Your task to perform on an android device: Play the last video I watched on Youtube Image 0: 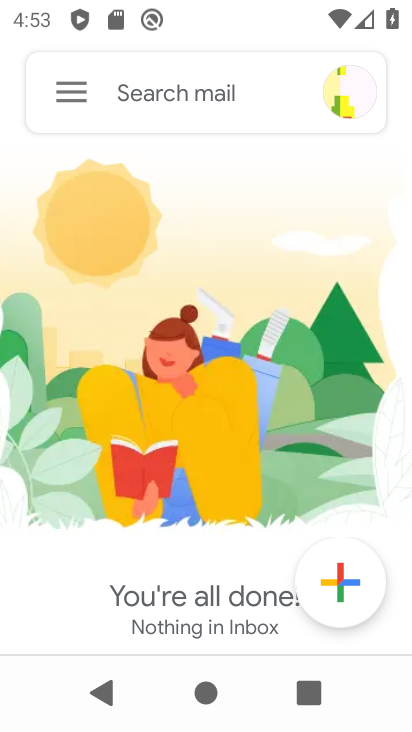
Step 0: press home button
Your task to perform on an android device: Play the last video I watched on Youtube Image 1: 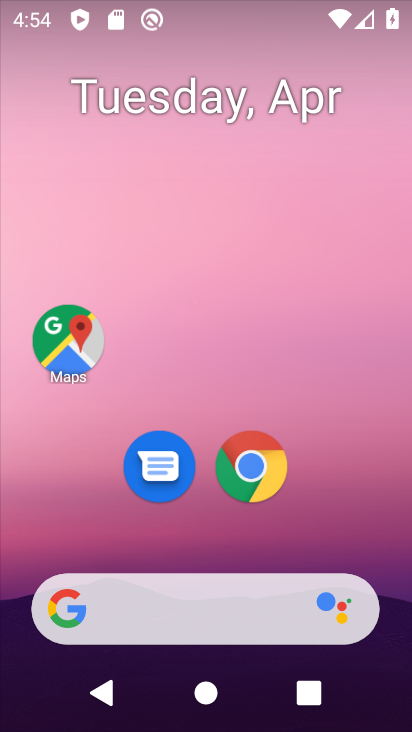
Step 1: drag from (186, 517) to (203, 0)
Your task to perform on an android device: Play the last video I watched on Youtube Image 2: 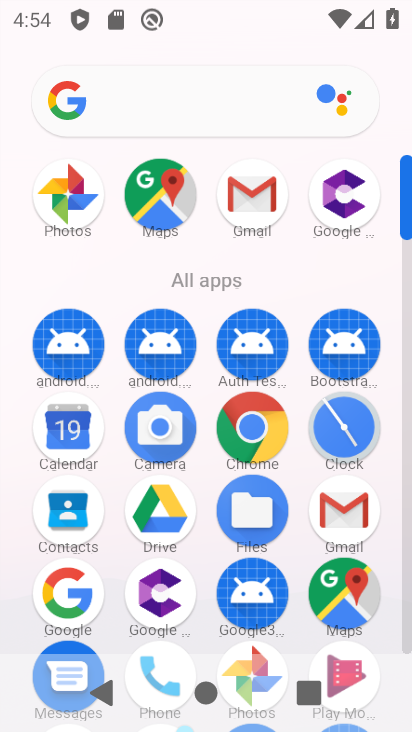
Step 2: drag from (205, 553) to (212, 147)
Your task to perform on an android device: Play the last video I watched on Youtube Image 3: 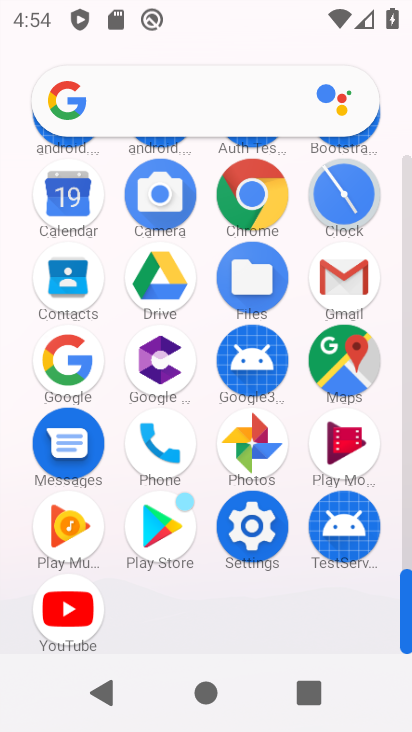
Step 3: click (58, 616)
Your task to perform on an android device: Play the last video I watched on Youtube Image 4: 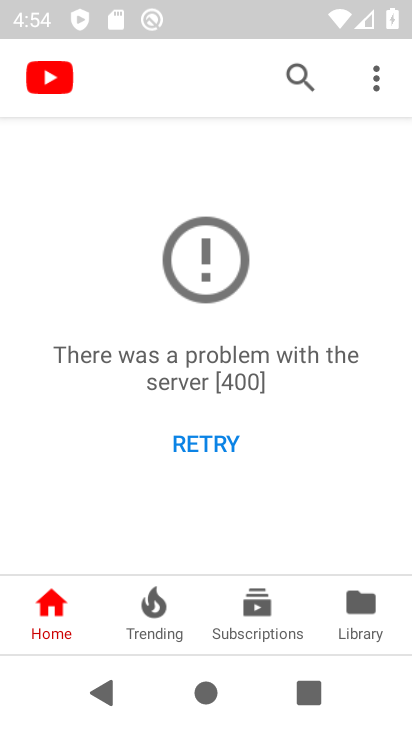
Step 4: click (363, 623)
Your task to perform on an android device: Play the last video I watched on Youtube Image 5: 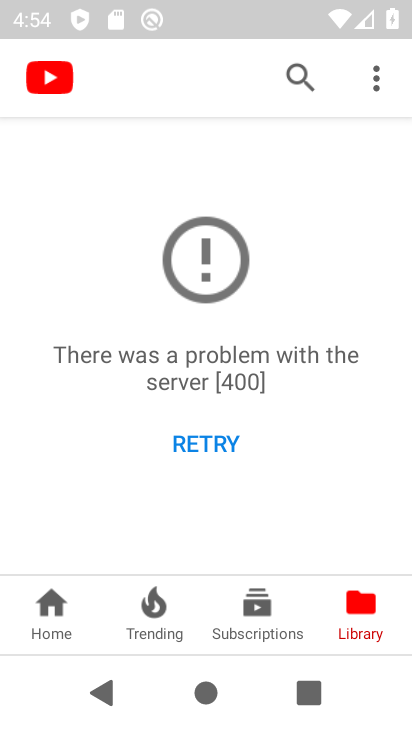
Step 5: click (197, 432)
Your task to perform on an android device: Play the last video I watched on Youtube Image 6: 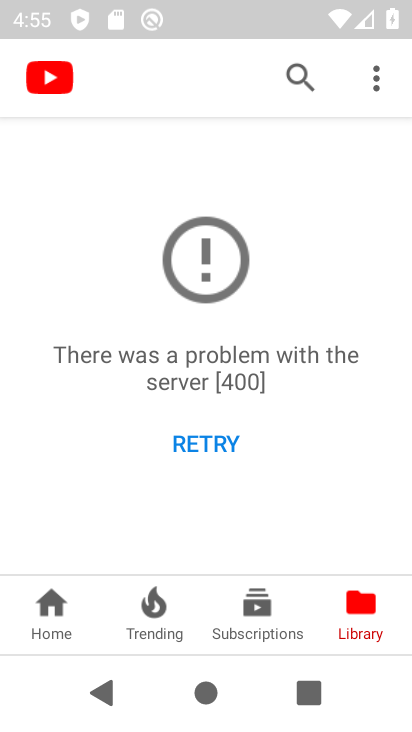
Step 6: click (38, 637)
Your task to perform on an android device: Play the last video I watched on Youtube Image 7: 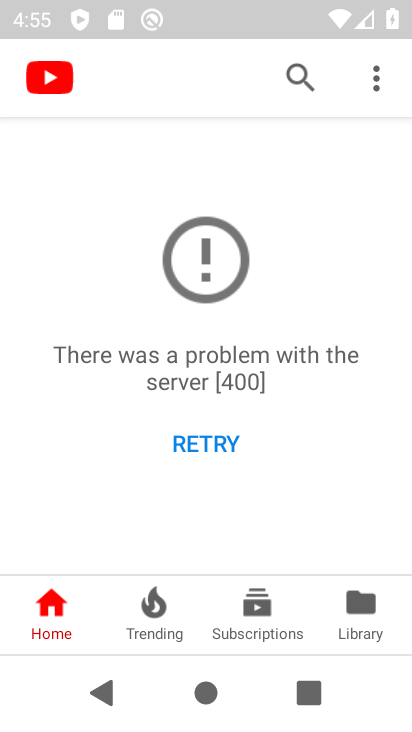
Step 7: task complete